Your task to perform on an android device: Go to battery settings Image 0: 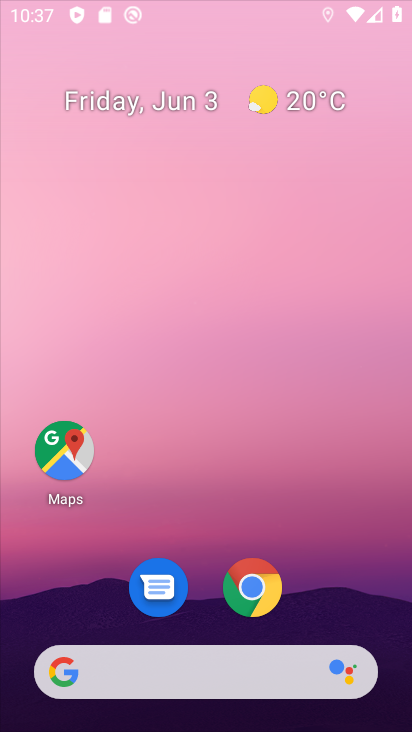
Step 0: drag from (345, 562) to (215, 43)
Your task to perform on an android device: Go to battery settings Image 1: 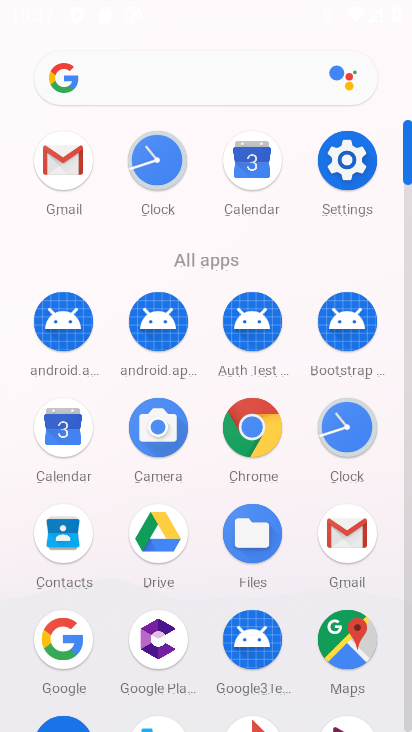
Step 1: press home button
Your task to perform on an android device: Go to battery settings Image 2: 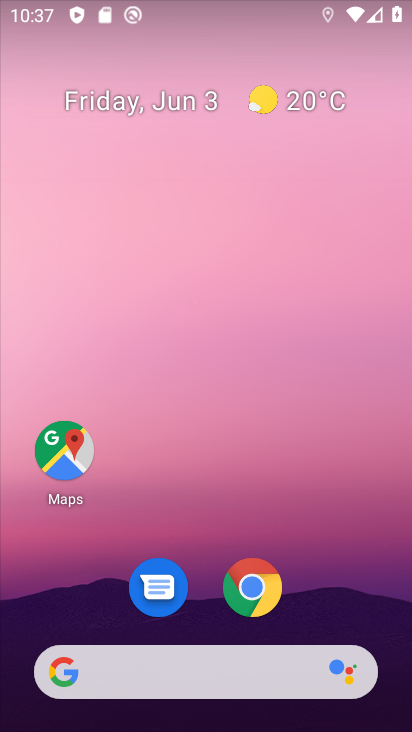
Step 2: drag from (347, 587) to (80, 98)
Your task to perform on an android device: Go to battery settings Image 3: 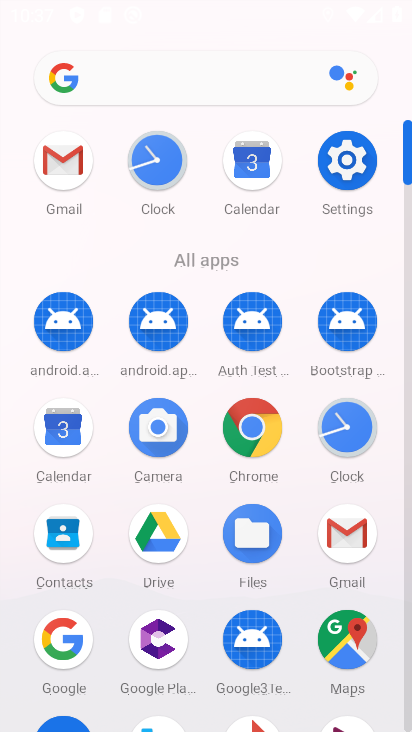
Step 3: click (354, 182)
Your task to perform on an android device: Go to battery settings Image 4: 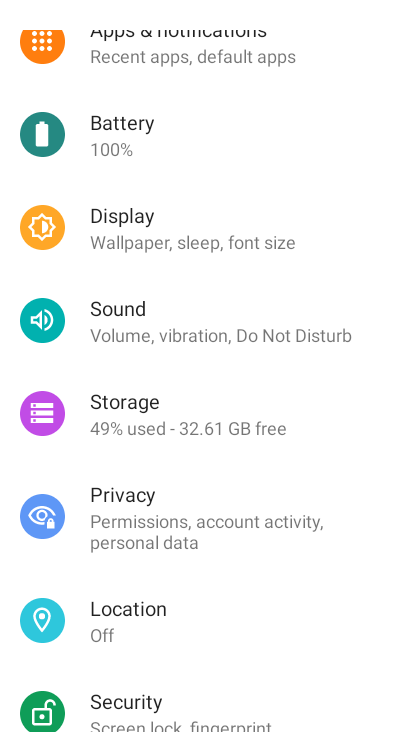
Step 4: click (238, 172)
Your task to perform on an android device: Go to battery settings Image 5: 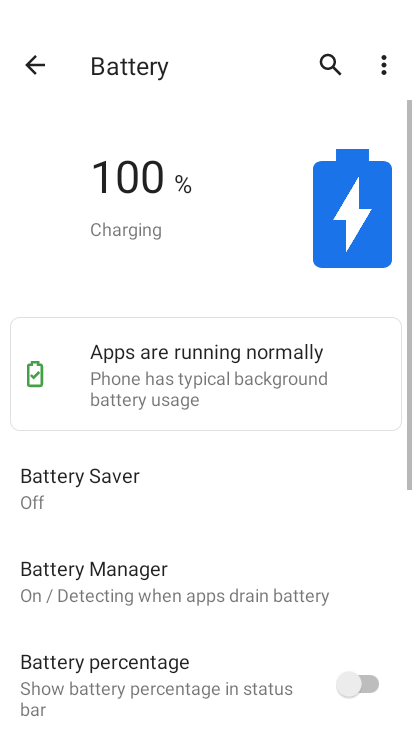
Step 5: task complete